Your task to perform on an android device: make emails show in primary in the gmail app Image 0: 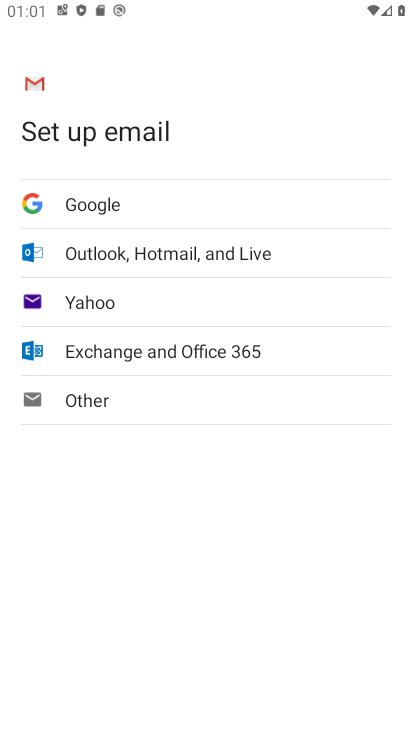
Step 0: press home button
Your task to perform on an android device: make emails show in primary in the gmail app Image 1: 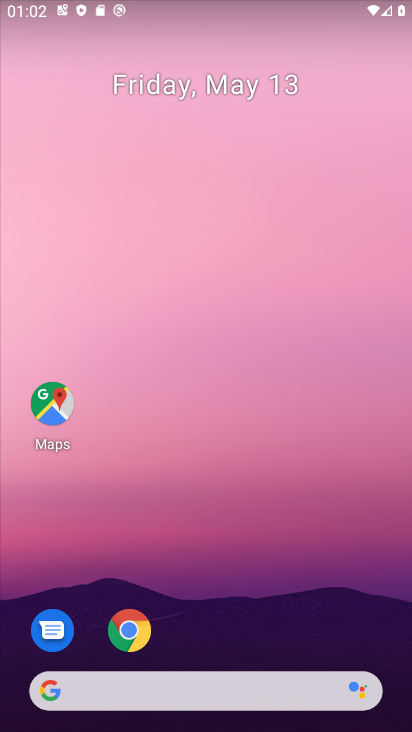
Step 1: drag from (231, 714) to (239, 254)
Your task to perform on an android device: make emails show in primary in the gmail app Image 2: 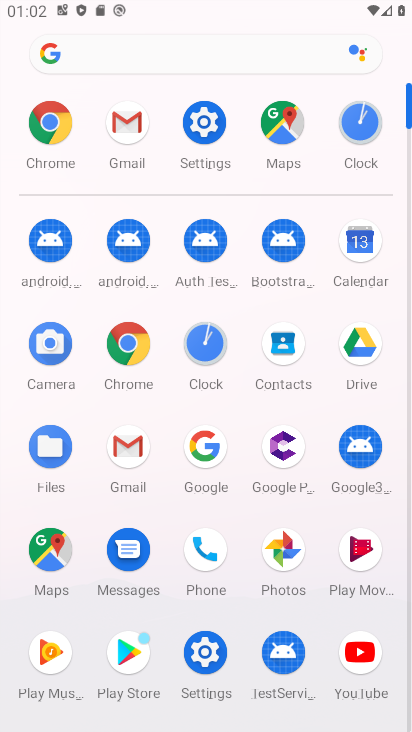
Step 2: click (132, 457)
Your task to perform on an android device: make emails show in primary in the gmail app Image 3: 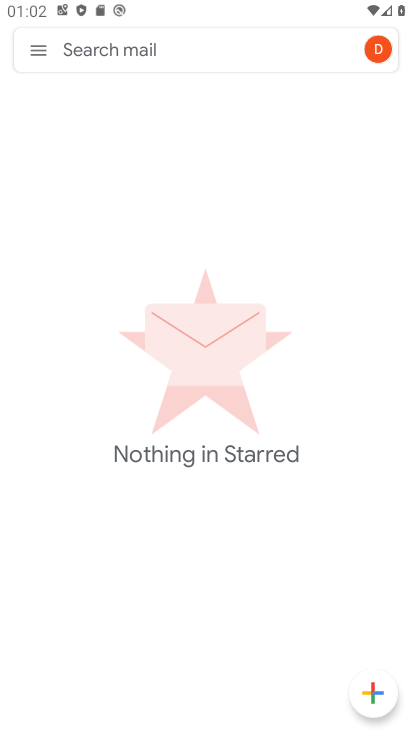
Step 3: click (40, 51)
Your task to perform on an android device: make emails show in primary in the gmail app Image 4: 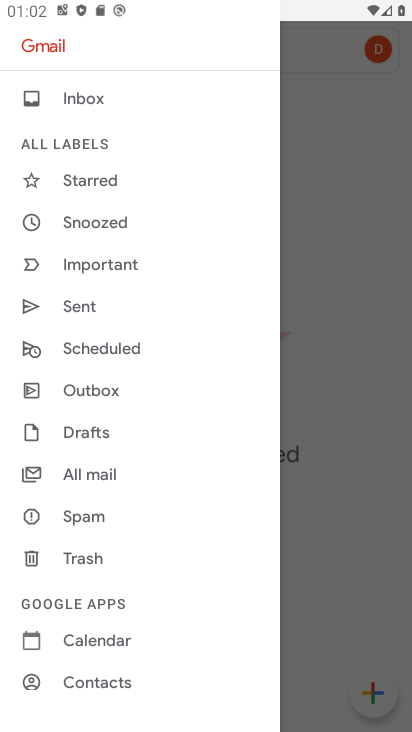
Step 4: drag from (72, 649) to (144, 511)
Your task to perform on an android device: make emails show in primary in the gmail app Image 5: 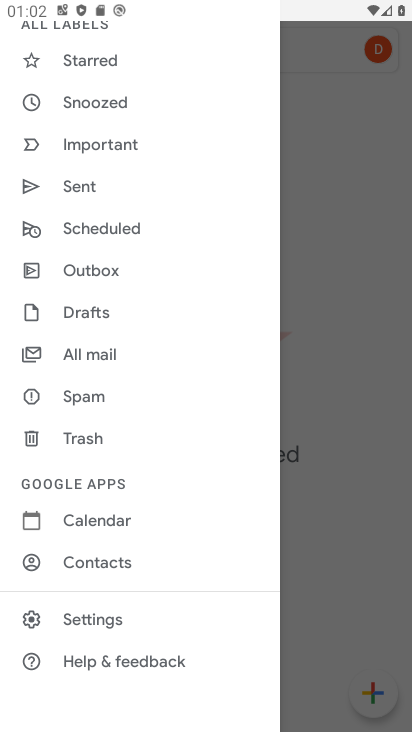
Step 5: click (107, 625)
Your task to perform on an android device: make emails show in primary in the gmail app Image 6: 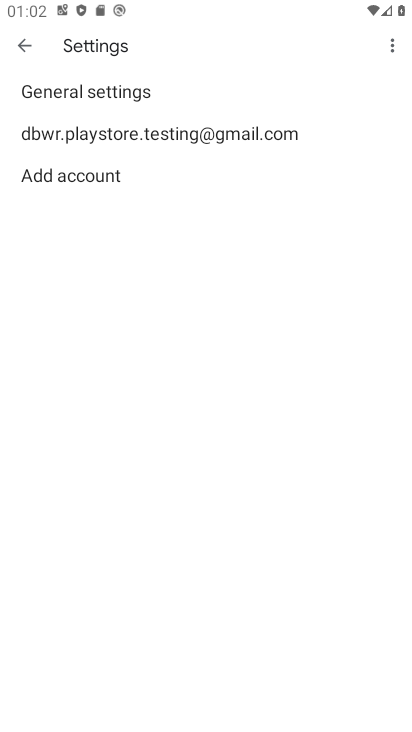
Step 6: click (120, 133)
Your task to perform on an android device: make emails show in primary in the gmail app Image 7: 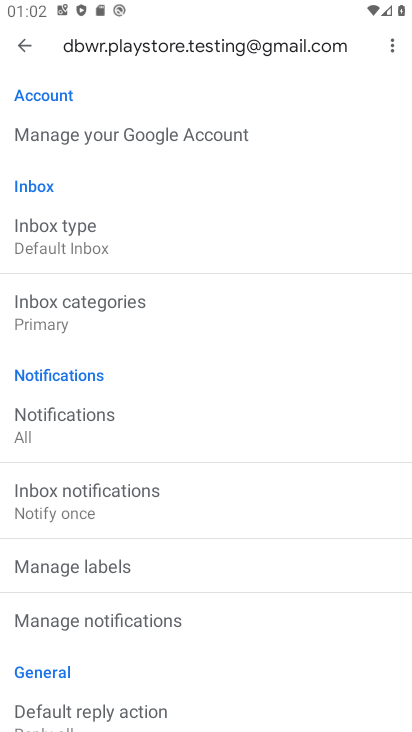
Step 7: drag from (102, 614) to (178, 424)
Your task to perform on an android device: make emails show in primary in the gmail app Image 8: 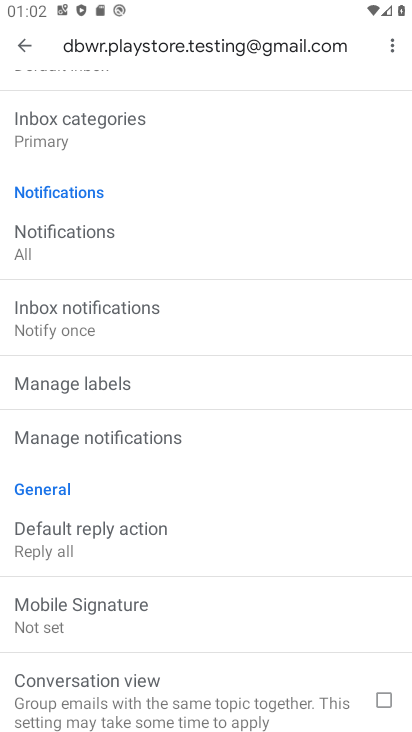
Step 8: drag from (122, 583) to (204, 402)
Your task to perform on an android device: make emails show in primary in the gmail app Image 9: 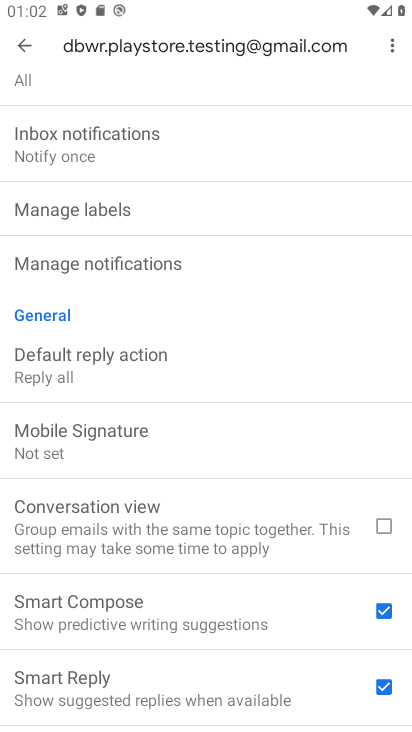
Step 9: drag from (77, 184) to (116, 485)
Your task to perform on an android device: make emails show in primary in the gmail app Image 10: 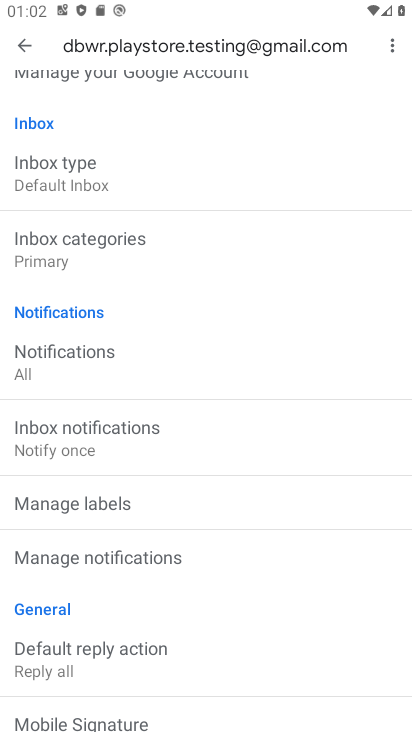
Step 10: click (67, 253)
Your task to perform on an android device: make emails show in primary in the gmail app Image 11: 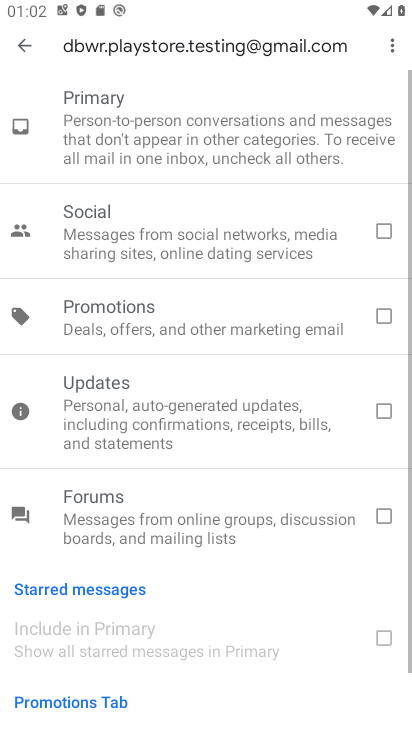
Step 11: click (178, 143)
Your task to perform on an android device: make emails show in primary in the gmail app Image 12: 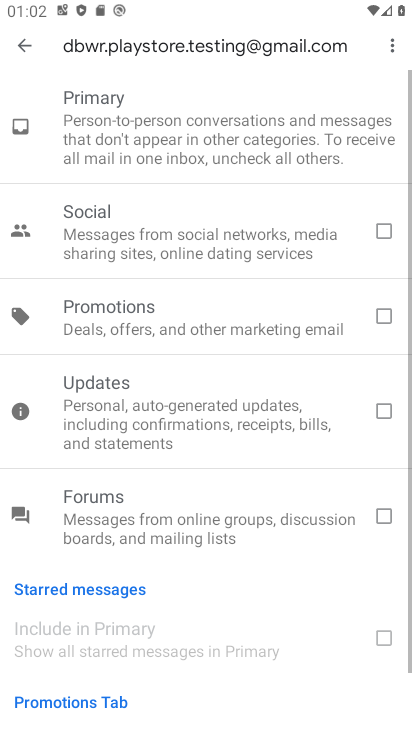
Step 12: task complete